Your task to perform on an android device: see tabs open on other devices in the chrome app Image 0: 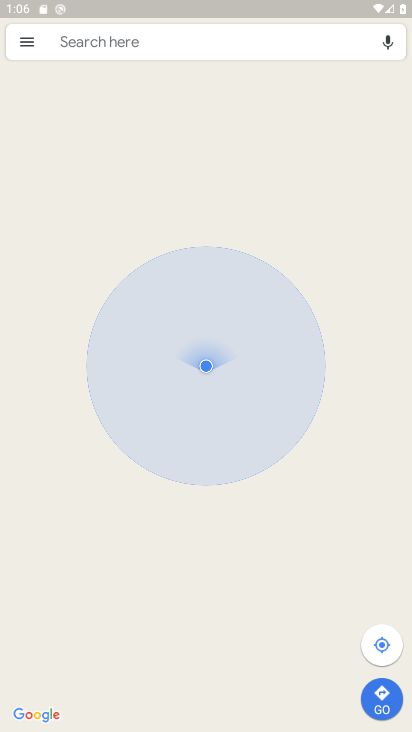
Step 0: press home button
Your task to perform on an android device: see tabs open on other devices in the chrome app Image 1: 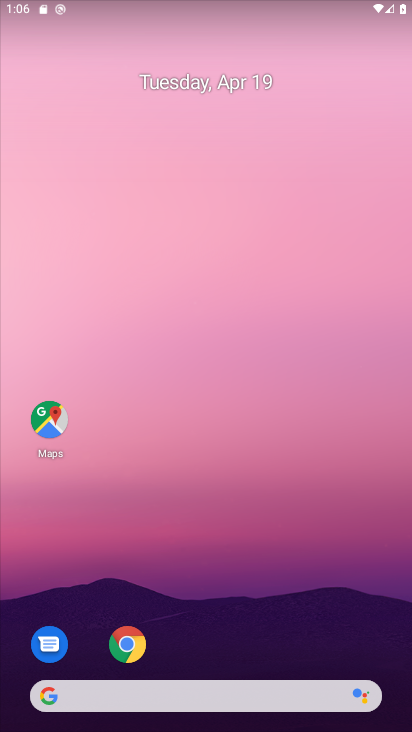
Step 1: click (127, 639)
Your task to perform on an android device: see tabs open on other devices in the chrome app Image 2: 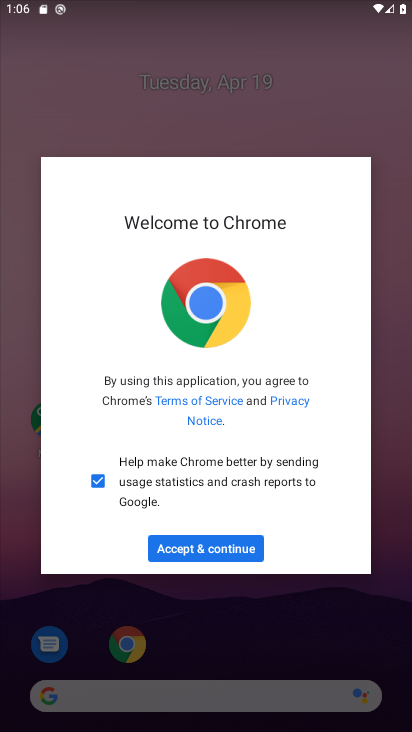
Step 2: click (197, 551)
Your task to perform on an android device: see tabs open on other devices in the chrome app Image 3: 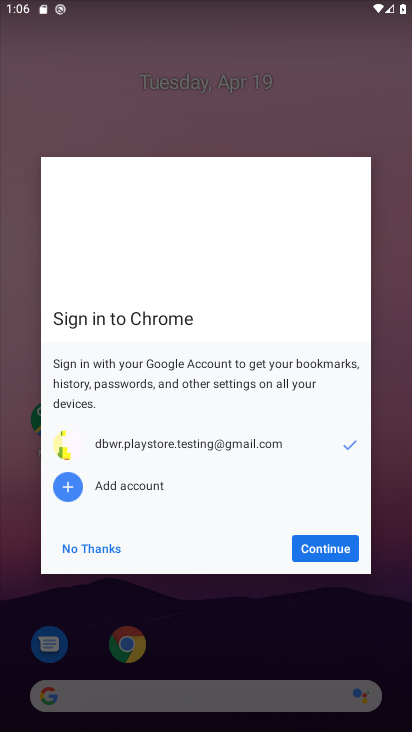
Step 3: click (319, 550)
Your task to perform on an android device: see tabs open on other devices in the chrome app Image 4: 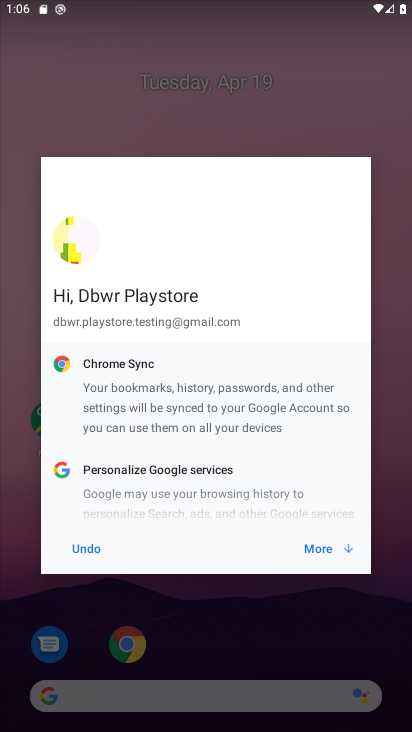
Step 4: click (317, 552)
Your task to perform on an android device: see tabs open on other devices in the chrome app Image 5: 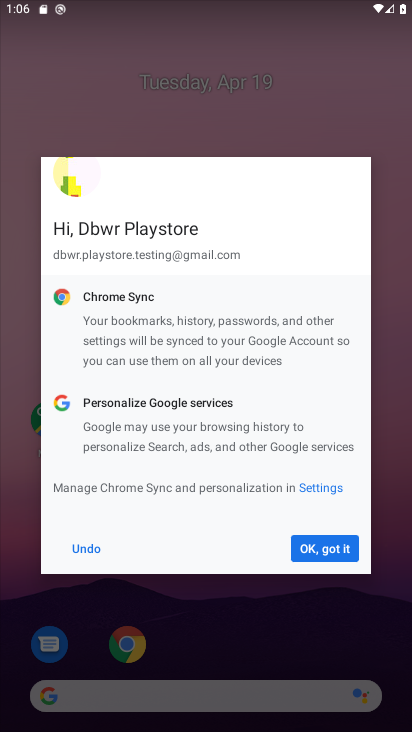
Step 5: click (316, 552)
Your task to perform on an android device: see tabs open on other devices in the chrome app Image 6: 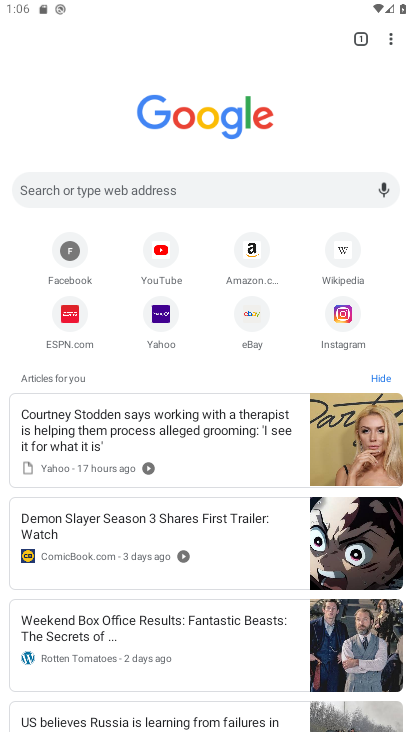
Step 6: click (391, 39)
Your task to perform on an android device: see tabs open on other devices in the chrome app Image 7: 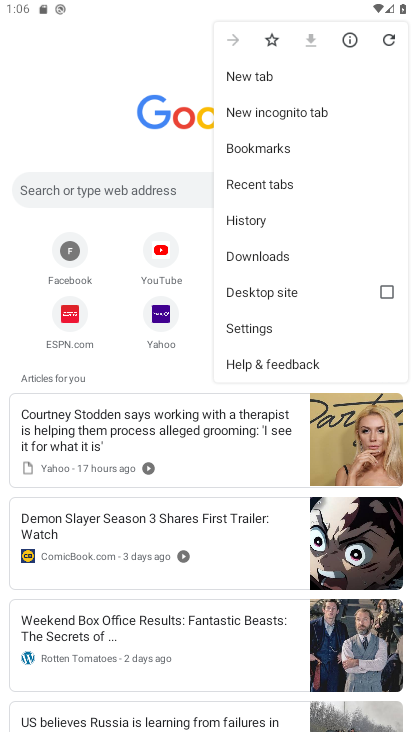
Step 7: click (277, 183)
Your task to perform on an android device: see tabs open on other devices in the chrome app Image 8: 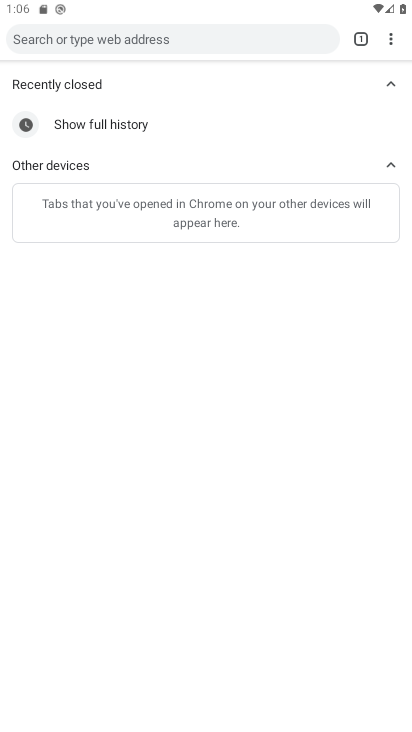
Step 8: task complete